Your task to perform on an android device: Do I have any events tomorrow? Image 0: 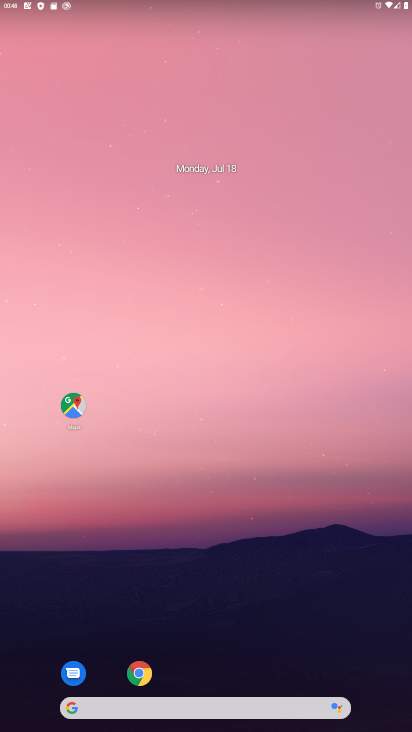
Step 0: drag from (235, 676) to (191, 213)
Your task to perform on an android device: Do I have any events tomorrow? Image 1: 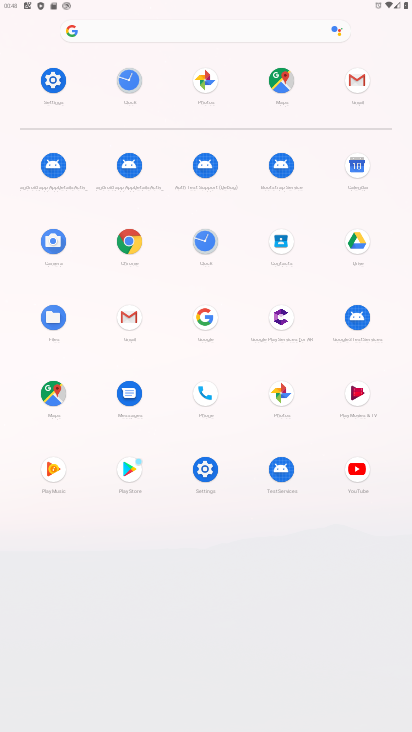
Step 1: click (146, 27)
Your task to perform on an android device: Do I have any events tomorrow? Image 2: 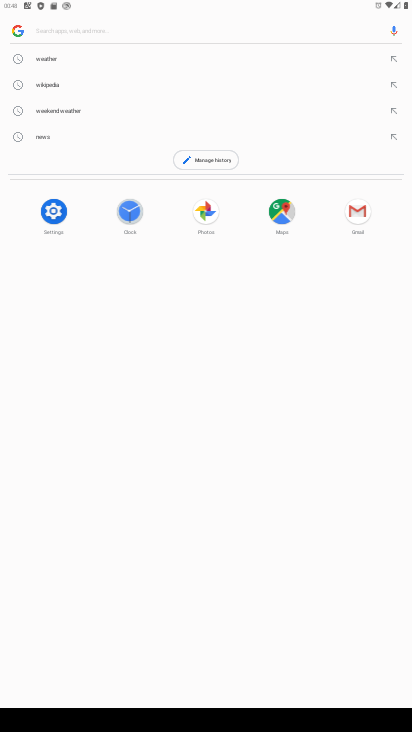
Step 2: type "event"
Your task to perform on an android device: Do I have any events tomorrow? Image 3: 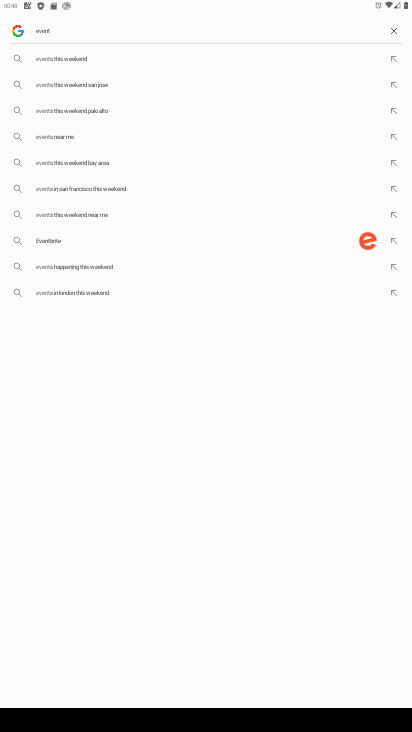
Step 3: press home button
Your task to perform on an android device: Do I have any events tomorrow? Image 4: 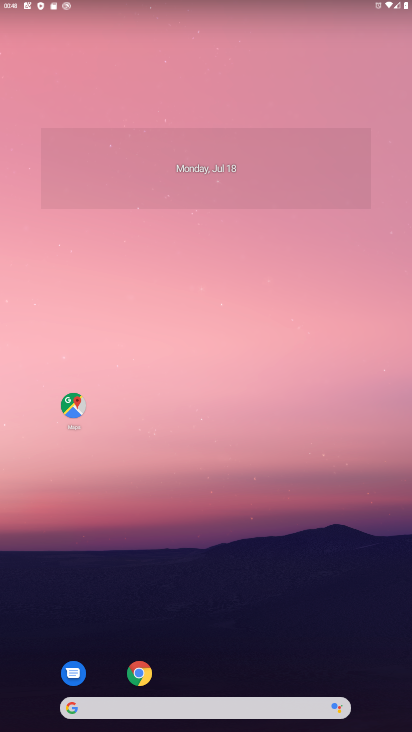
Step 4: drag from (228, 675) to (227, 237)
Your task to perform on an android device: Do I have any events tomorrow? Image 5: 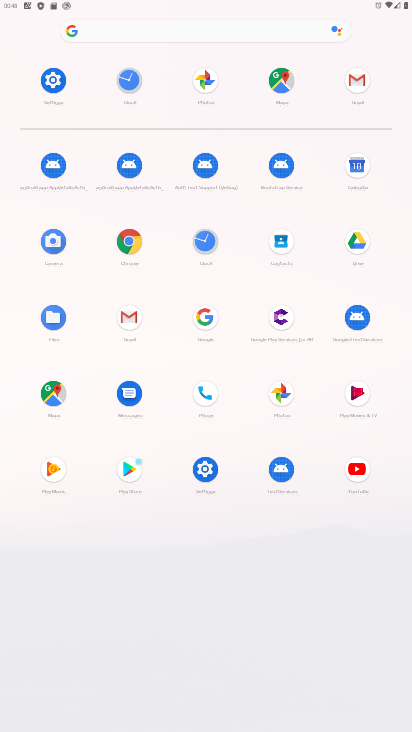
Step 5: click (353, 163)
Your task to perform on an android device: Do I have any events tomorrow? Image 6: 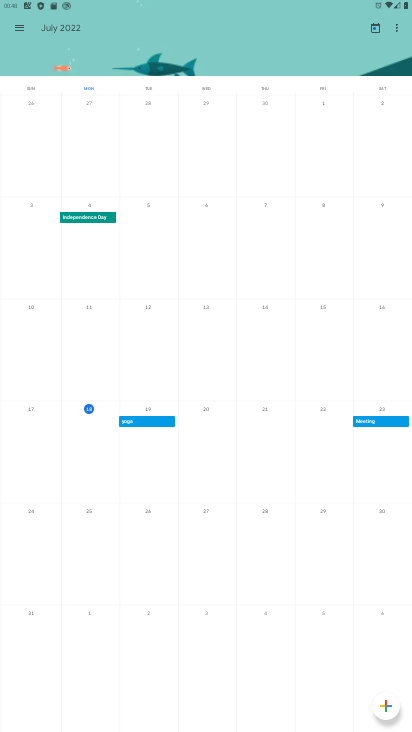
Step 6: task complete